Your task to perform on an android device: Go to privacy settings Image 0: 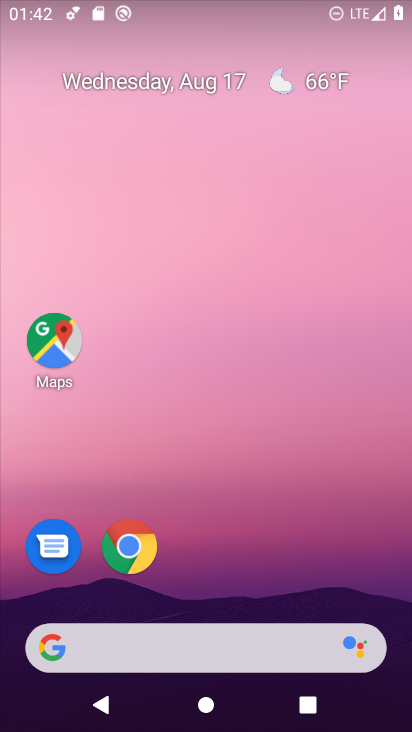
Step 0: drag from (298, 579) to (236, 214)
Your task to perform on an android device: Go to privacy settings Image 1: 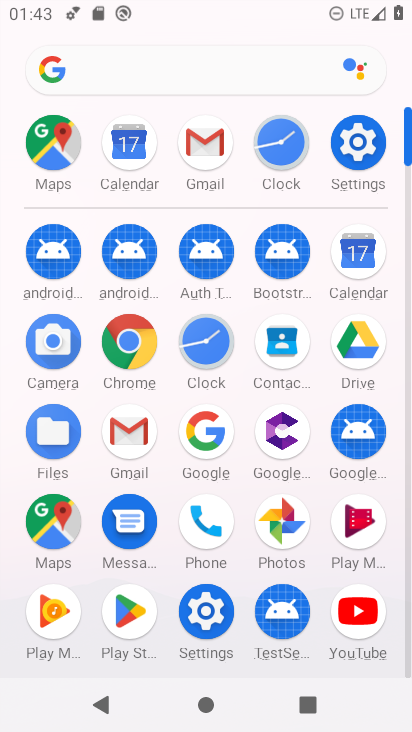
Step 1: click (357, 146)
Your task to perform on an android device: Go to privacy settings Image 2: 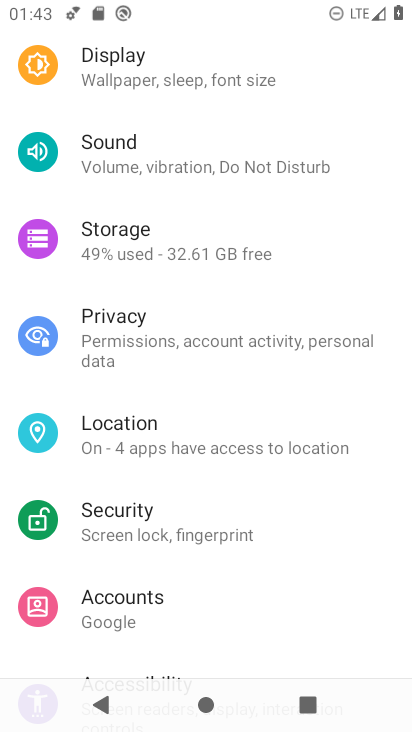
Step 2: click (117, 310)
Your task to perform on an android device: Go to privacy settings Image 3: 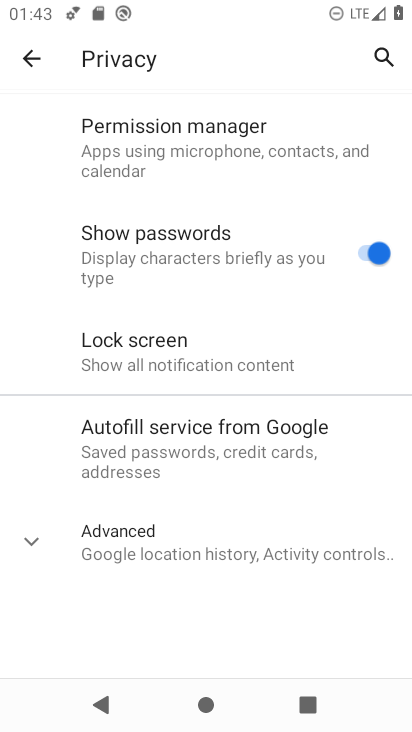
Step 3: task complete